Your task to perform on an android device: Open Android settings Image 0: 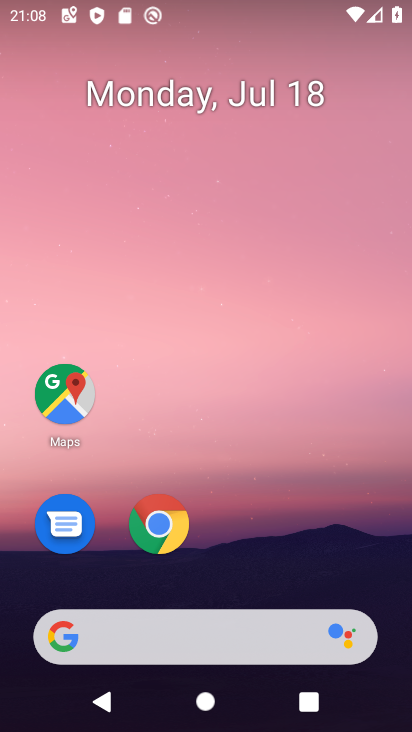
Step 0: drag from (300, 490) to (268, 30)
Your task to perform on an android device: Open Android settings Image 1: 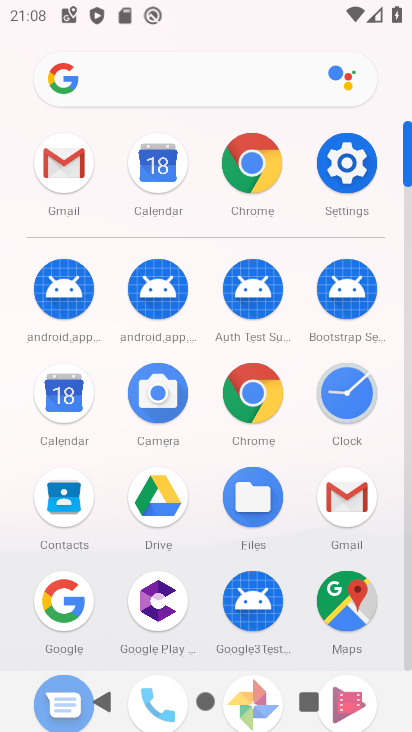
Step 1: click (349, 171)
Your task to perform on an android device: Open Android settings Image 2: 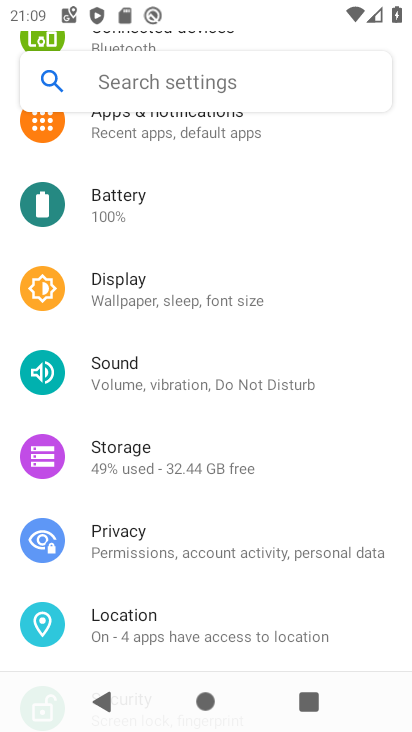
Step 2: drag from (264, 547) to (324, 154)
Your task to perform on an android device: Open Android settings Image 3: 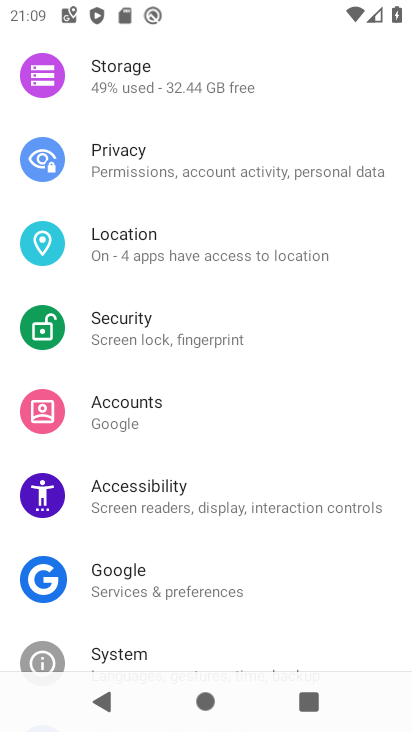
Step 3: drag from (248, 460) to (238, 174)
Your task to perform on an android device: Open Android settings Image 4: 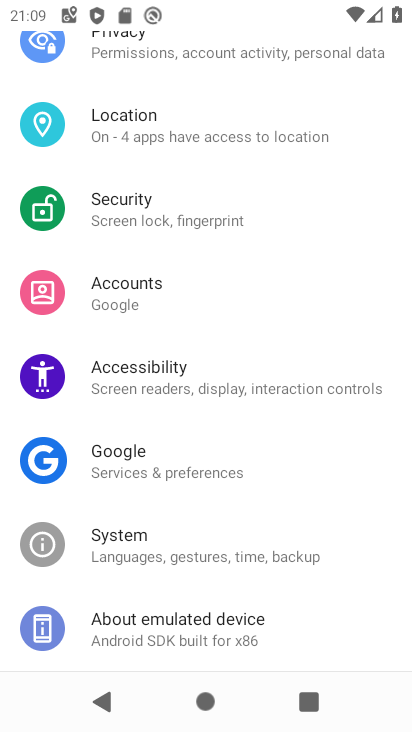
Step 4: click (205, 619)
Your task to perform on an android device: Open Android settings Image 5: 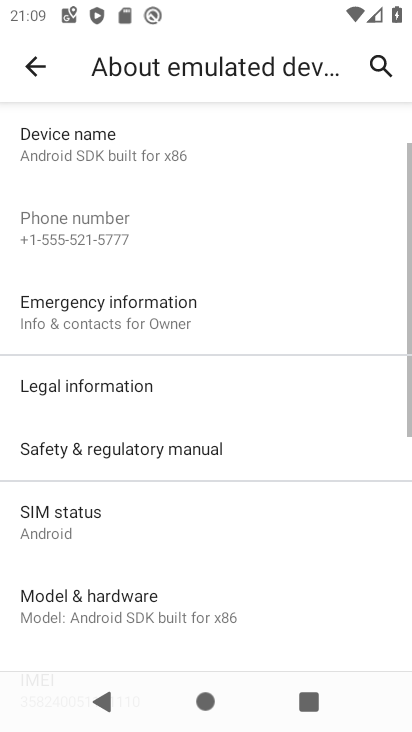
Step 5: task complete